Your task to perform on an android device: Clear the cart on ebay.com. Search for rayovac triple a on ebay.com, select the first entry, add it to the cart, then select checkout. Image 0: 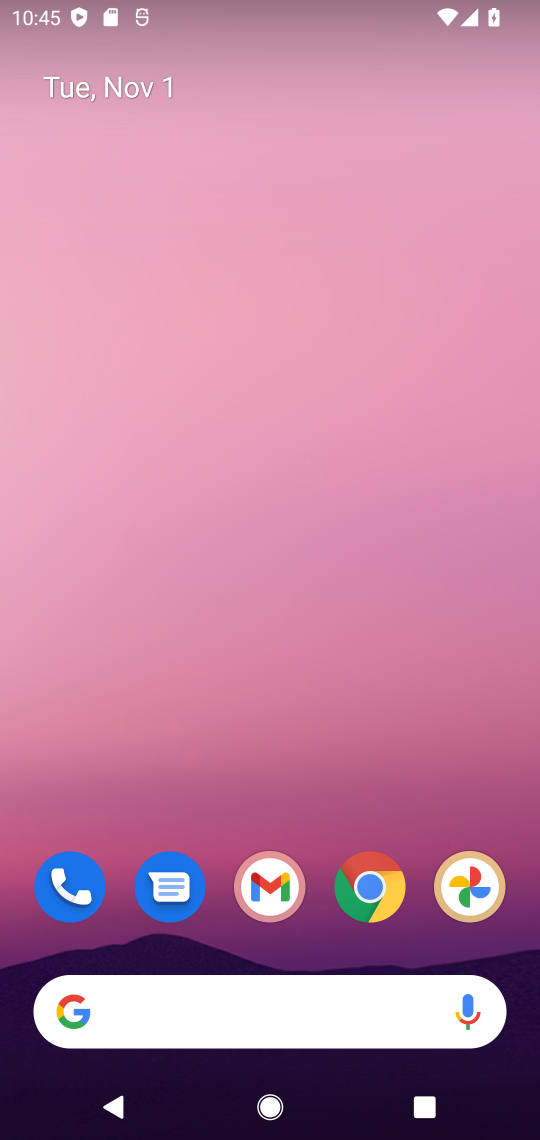
Step 0: click (375, 899)
Your task to perform on an android device: Clear the cart on ebay.com. Search for rayovac triple a on ebay.com, select the first entry, add it to the cart, then select checkout. Image 1: 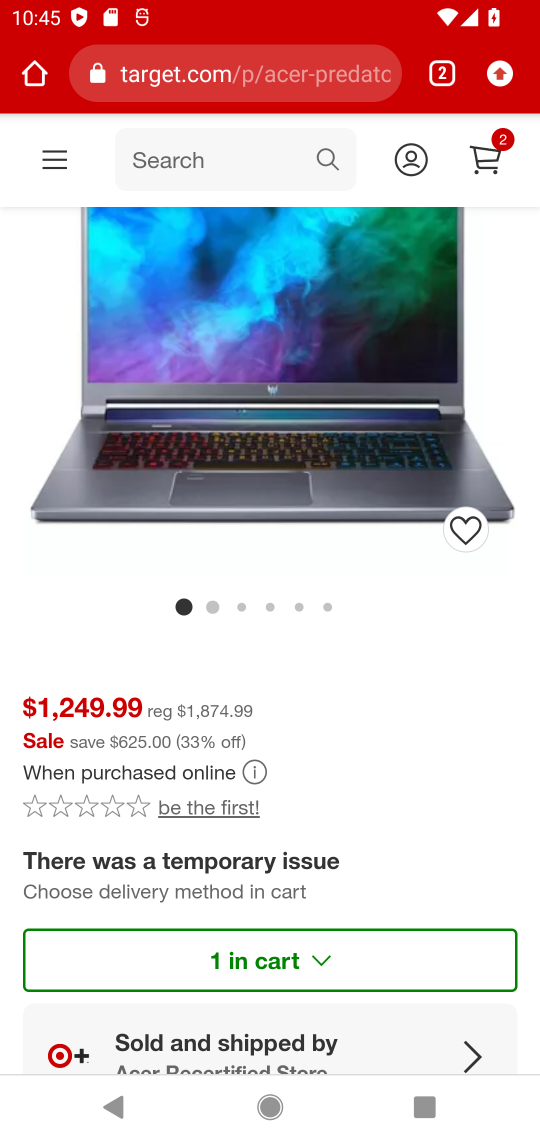
Step 1: click (247, 92)
Your task to perform on an android device: Clear the cart on ebay.com. Search for rayovac triple a on ebay.com, select the first entry, add it to the cart, then select checkout. Image 2: 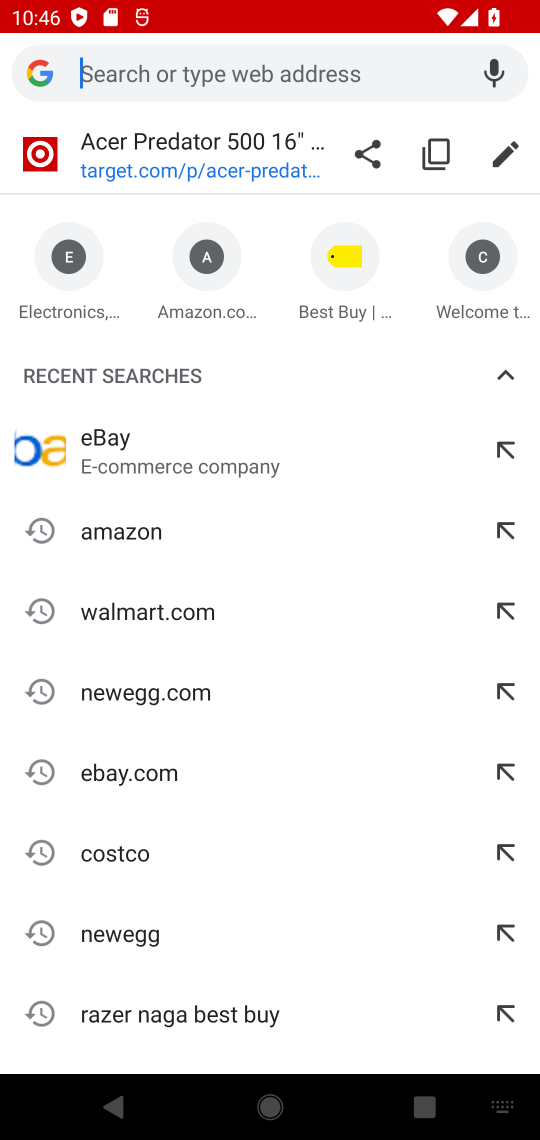
Step 2: type "ebay.com"
Your task to perform on an android device: Clear the cart on ebay.com. Search for rayovac triple a on ebay.com, select the first entry, add it to the cart, then select checkout. Image 3: 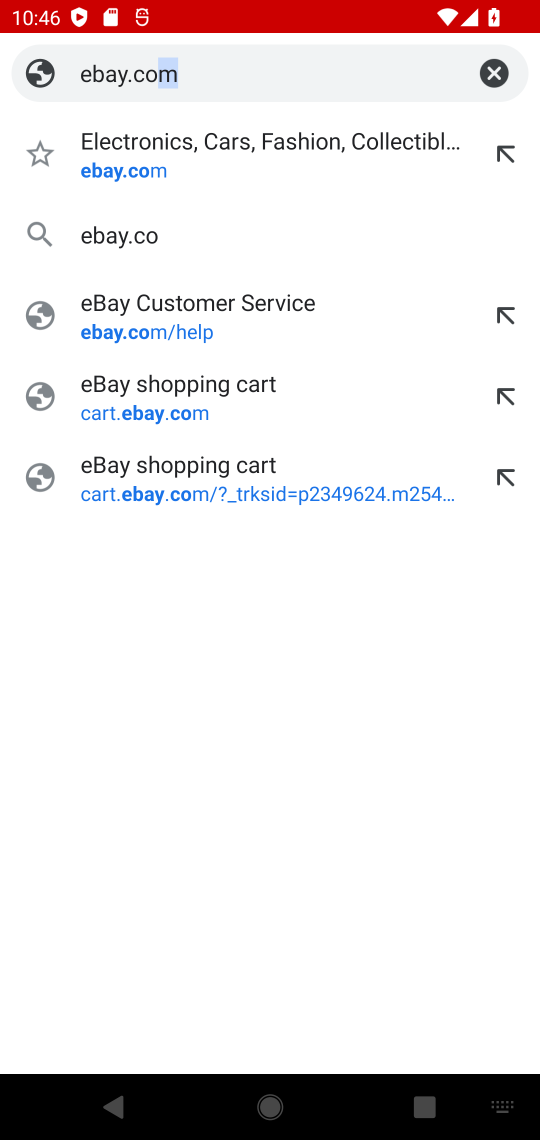
Step 3: press enter
Your task to perform on an android device: Clear the cart on ebay.com. Search for rayovac triple a on ebay.com, select the first entry, add it to the cart, then select checkout. Image 4: 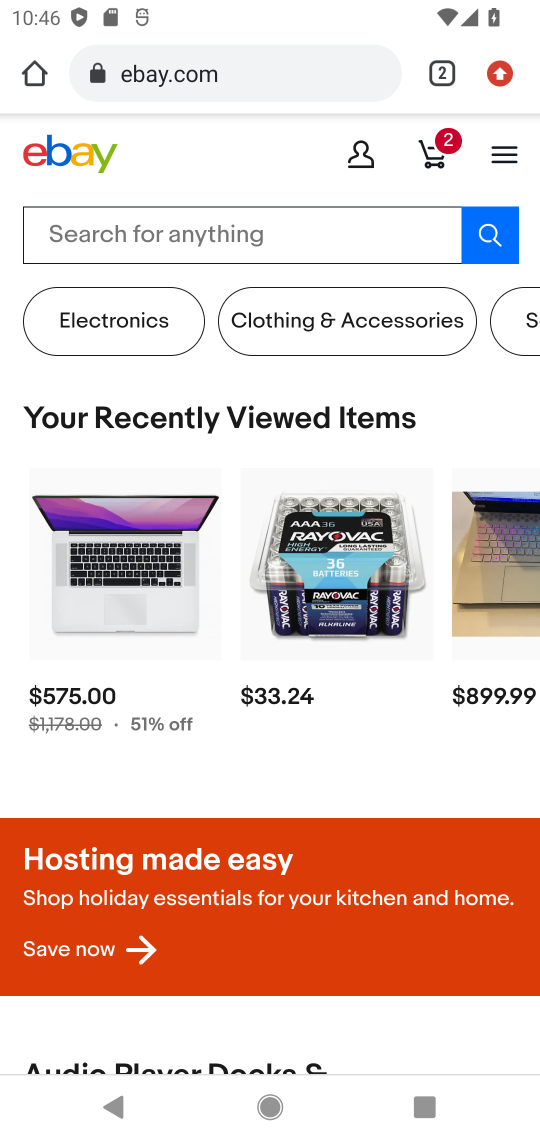
Step 4: click (217, 250)
Your task to perform on an android device: Clear the cart on ebay.com. Search for rayovac triple a on ebay.com, select the first entry, add it to the cart, then select checkout. Image 5: 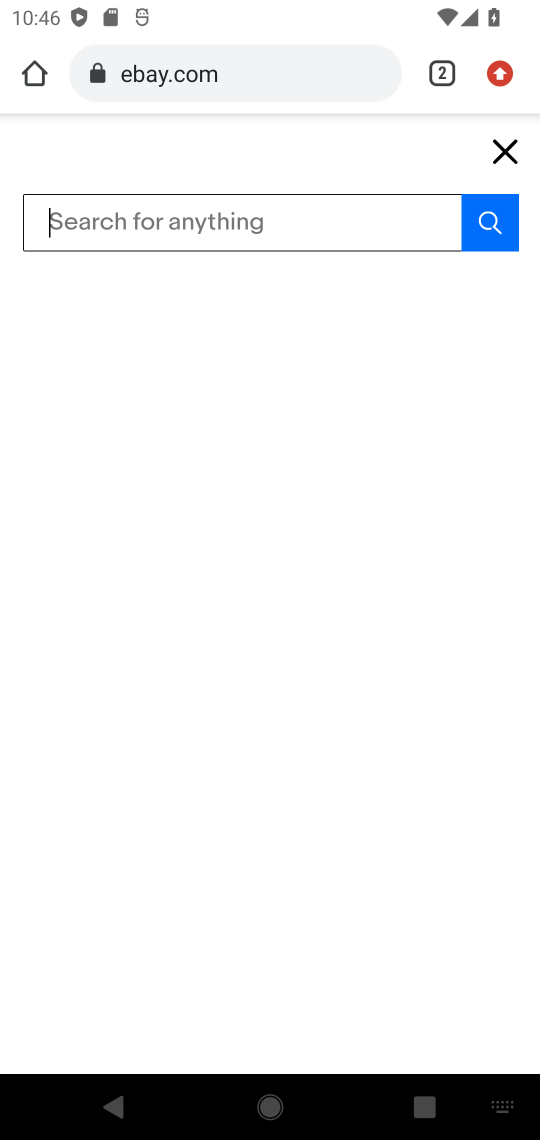
Step 5: type " rayovac triple a"
Your task to perform on an android device: Clear the cart on ebay.com. Search for rayovac triple a on ebay.com, select the first entry, add it to the cart, then select checkout. Image 6: 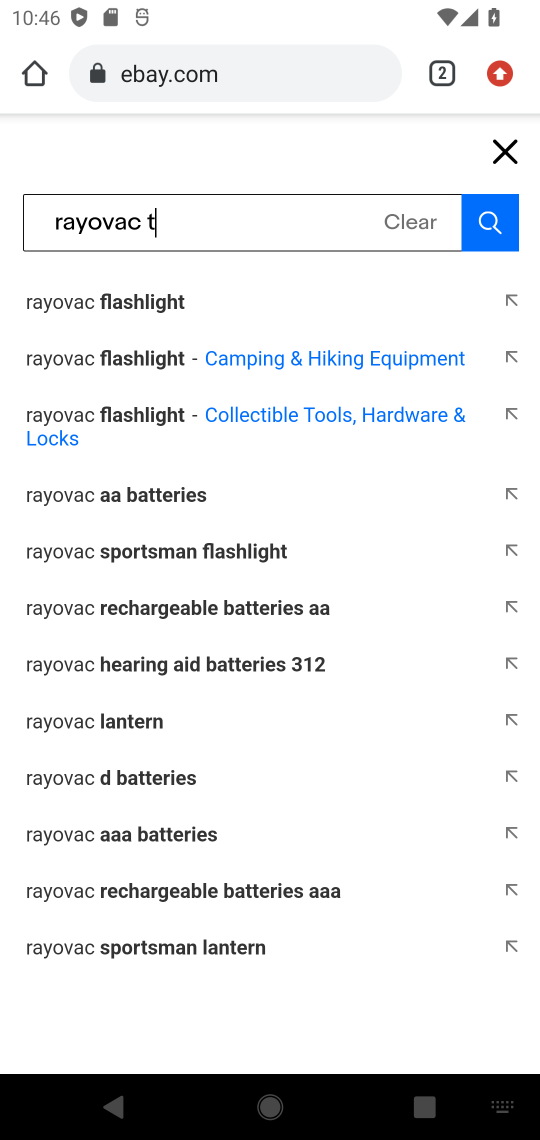
Step 6: press enter
Your task to perform on an android device: Clear the cart on ebay.com. Search for rayovac triple a on ebay.com, select the first entry, add it to the cart, then select checkout. Image 7: 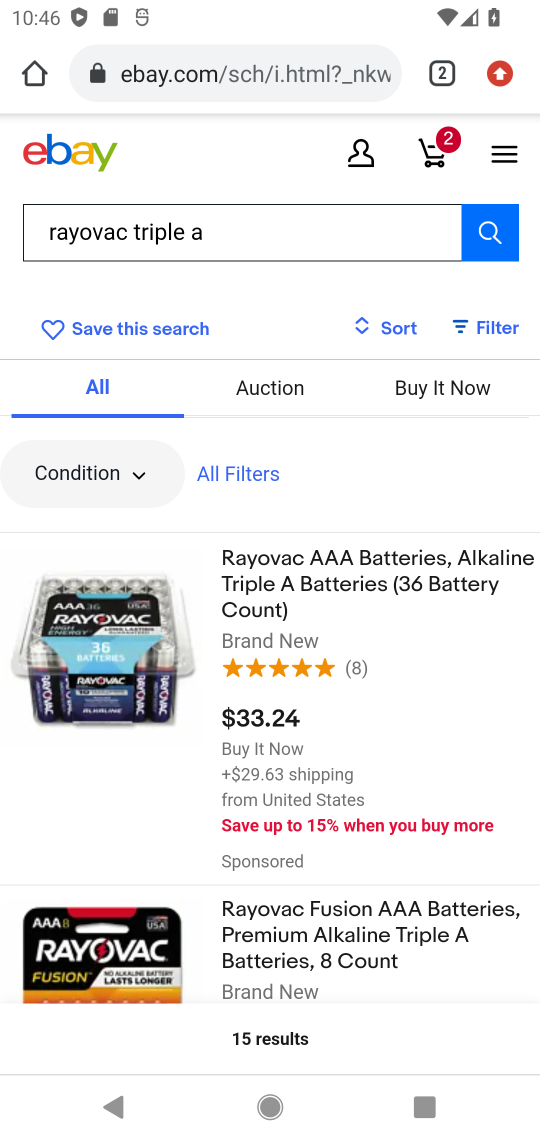
Step 7: click (87, 681)
Your task to perform on an android device: Clear the cart on ebay.com. Search for rayovac triple a on ebay.com, select the first entry, add it to the cart, then select checkout. Image 8: 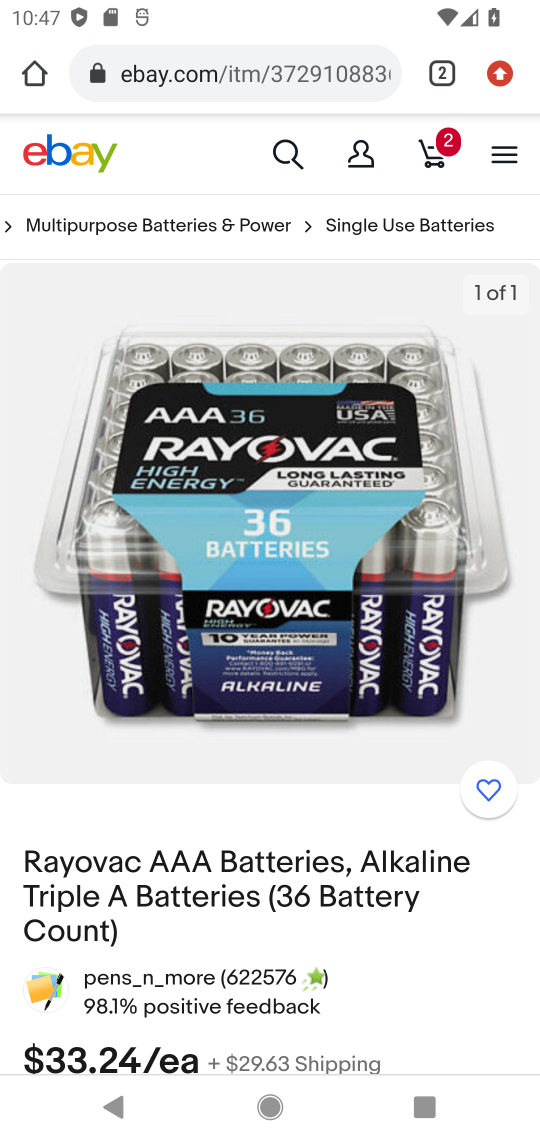
Step 8: drag from (397, 858) to (415, 430)
Your task to perform on an android device: Clear the cart on ebay.com. Search for rayovac triple a on ebay.com, select the first entry, add it to the cart, then select checkout. Image 9: 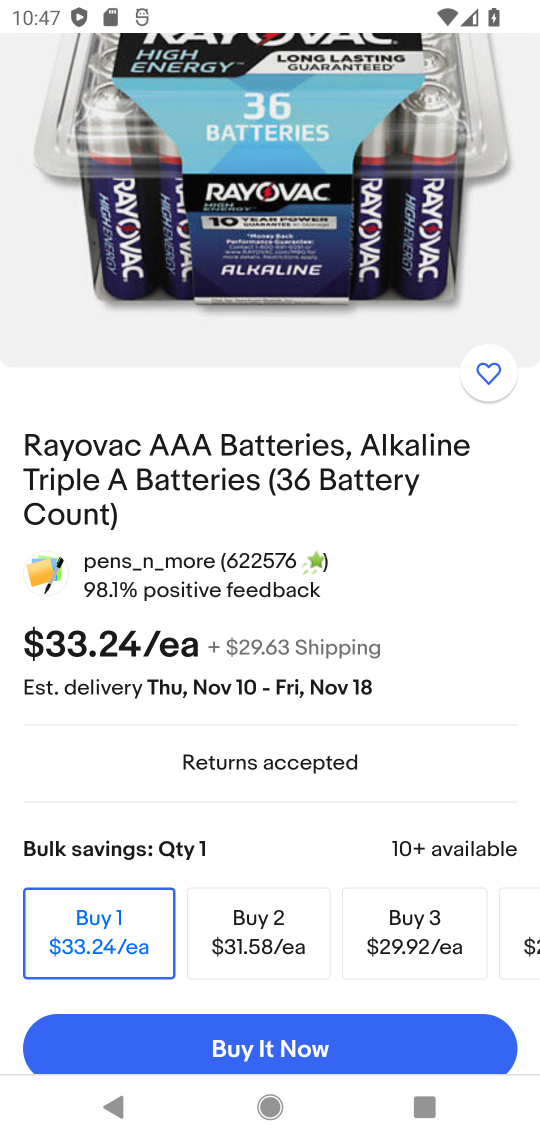
Step 9: drag from (369, 789) to (342, 624)
Your task to perform on an android device: Clear the cart on ebay.com. Search for rayovac triple a on ebay.com, select the first entry, add it to the cart, then select checkout. Image 10: 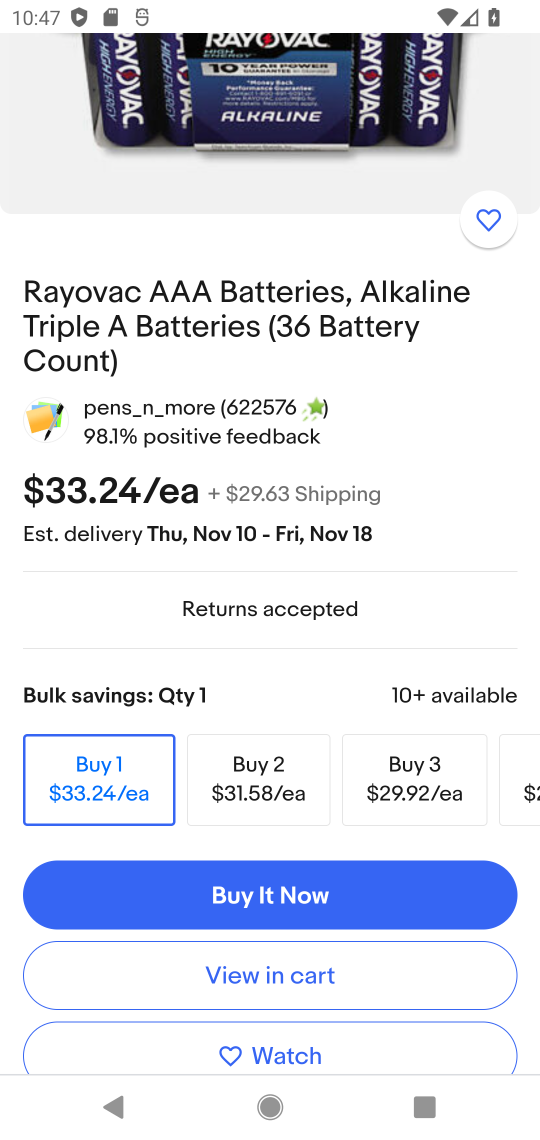
Step 10: click (328, 973)
Your task to perform on an android device: Clear the cart on ebay.com. Search for rayovac triple a on ebay.com, select the first entry, add it to the cart, then select checkout. Image 11: 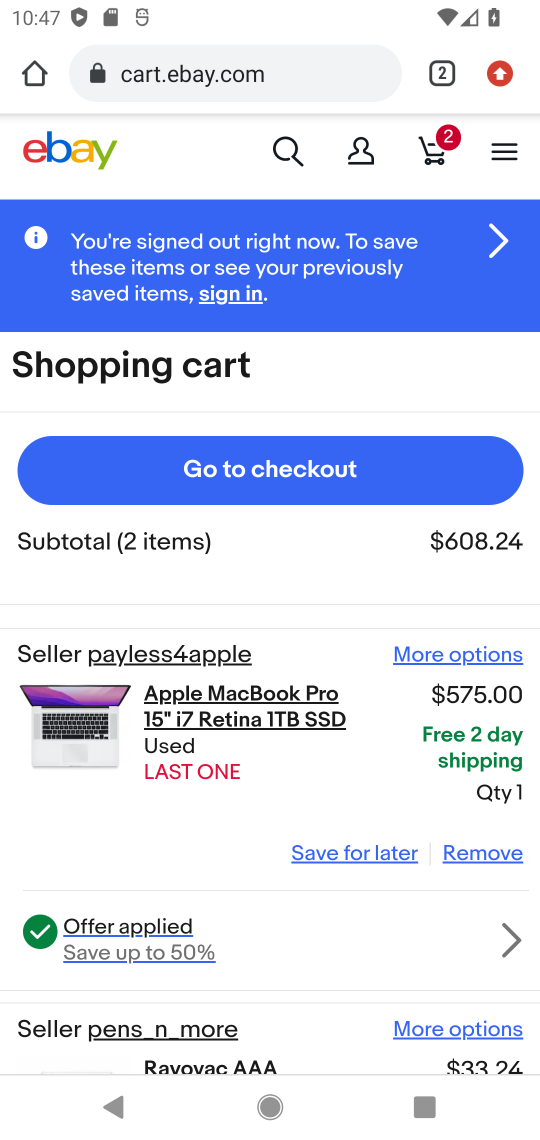
Step 11: click (246, 460)
Your task to perform on an android device: Clear the cart on ebay.com. Search for rayovac triple a on ebay.com, select the first entry, add it to the cart, then select checkout. Image 12: 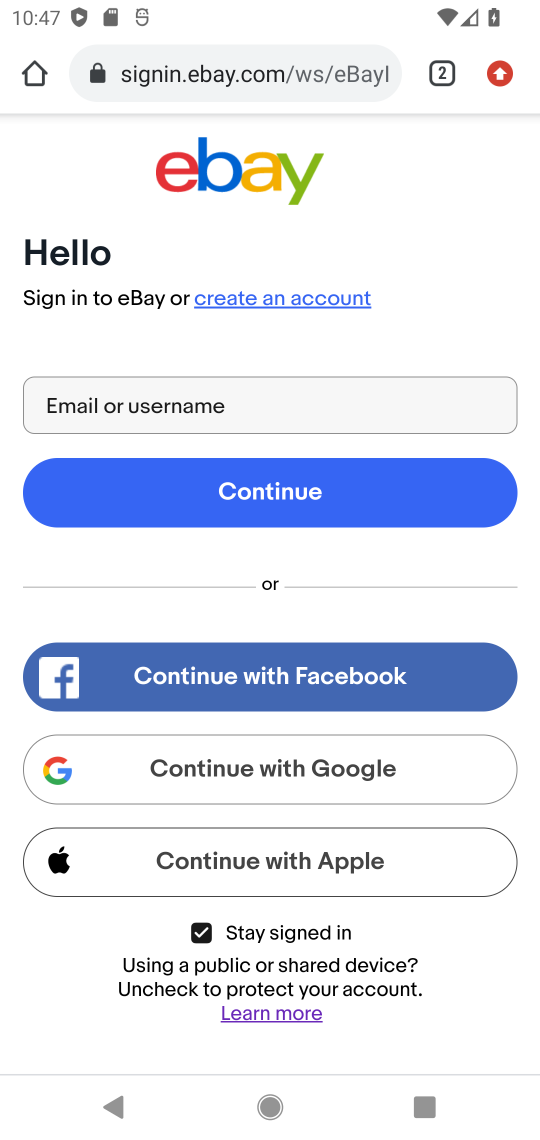
Step 12: task complete